Your task to perform on an android device: add a label to a message in the gmail app Image 0: 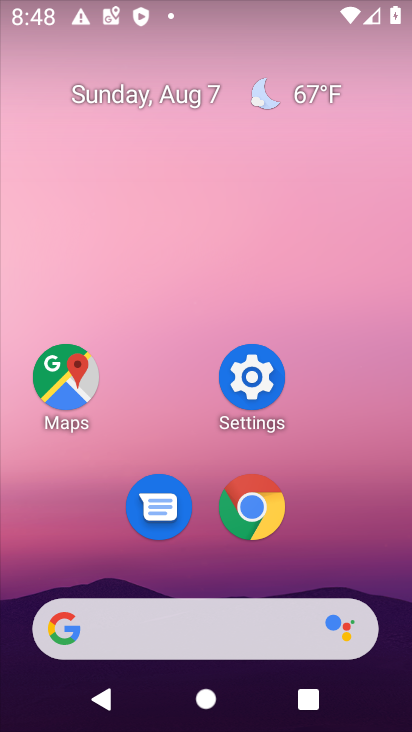
Step 0: drag from (234, 621) to (300, 18)
Your task to perform on an android device: add a label to a message in the gmail app Image 1: 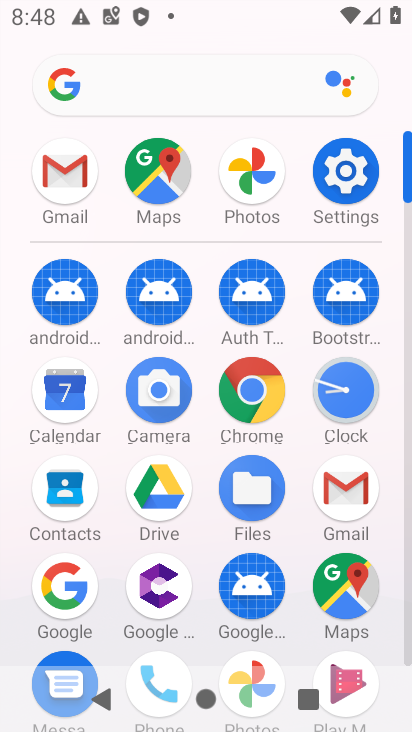
Step 1: click (62, 177)
Your task to perform on an android device: add a label to a message in the gmail app Image 2: 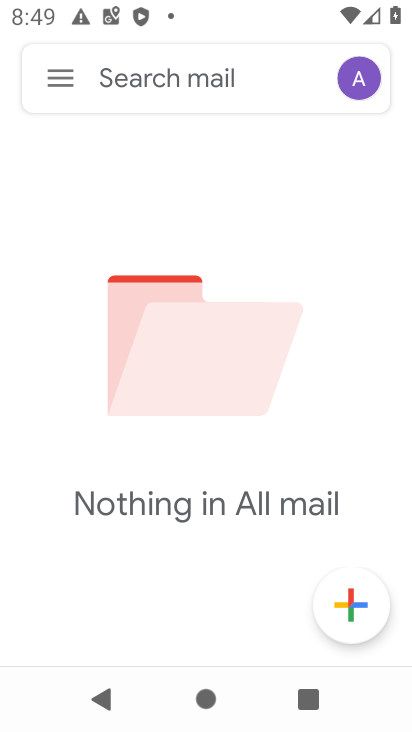
Step 2: task complete